Your task to perform on an android device: Open location settings Image 0: 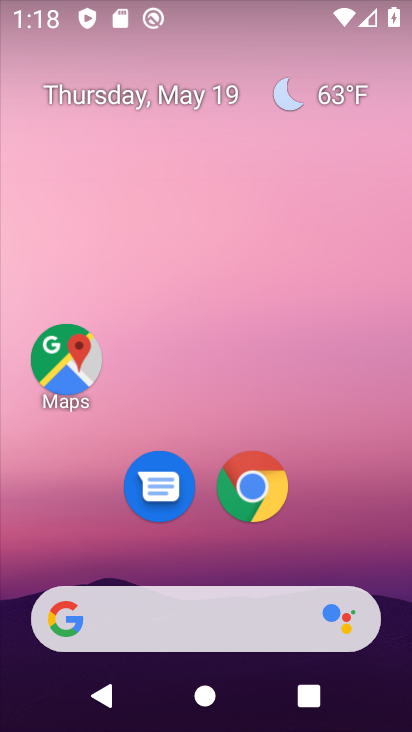
Step 0: drag from (336, 534) to (240, 20)
Your task to perform on an android device: Open location settings Image 1: 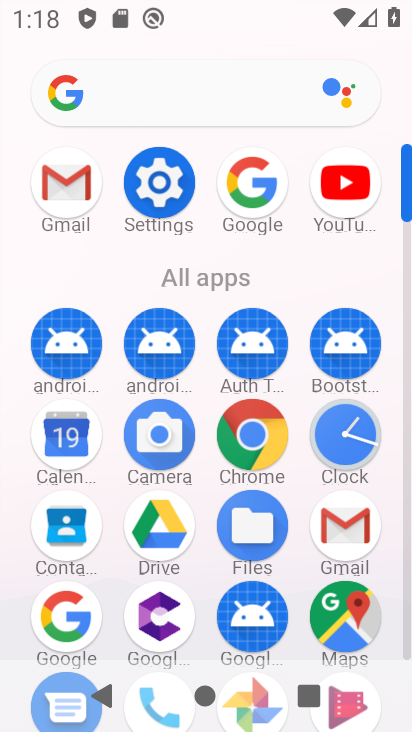
Step 1: click (153, 216)
Your task to perform on an android device: Open location settings Image 2: 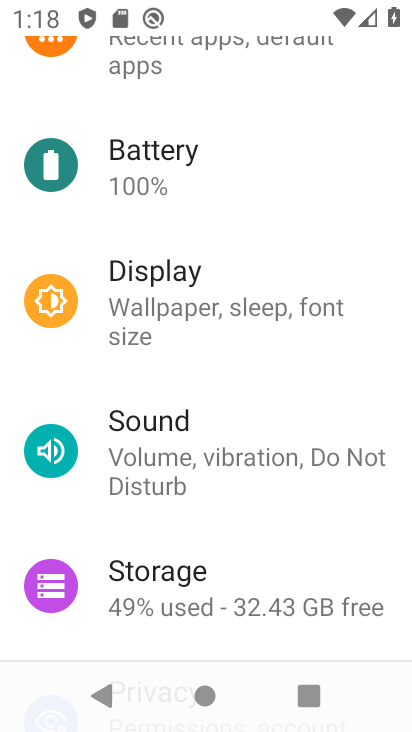
Step 2: drag from (243, 409) to (275, 56)
Your task to perform on an android device: Open location settings Image 3: 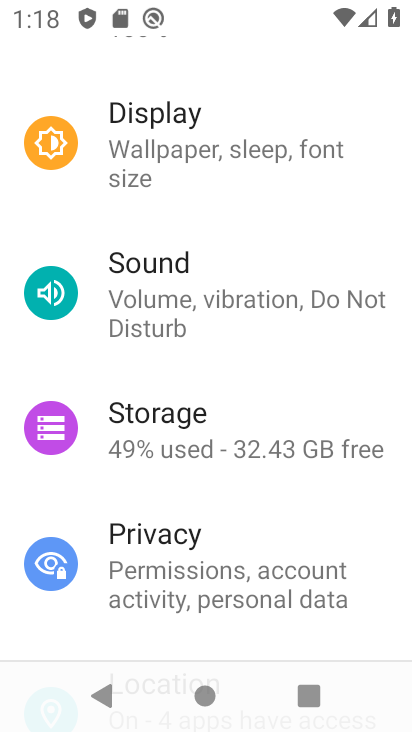
Step 3: drag from (175, 464) to (244, 98)
Your task to perform on an android device: Open location settings Image 4: 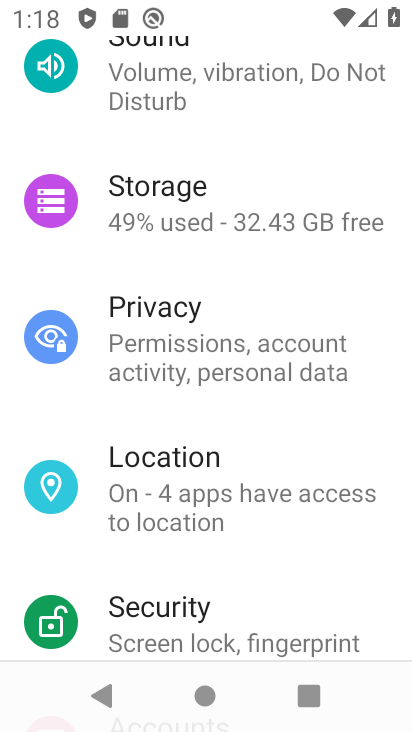
Step 4: click (202, 506)
Your task to perform on an android device: Open location settings Image 5: 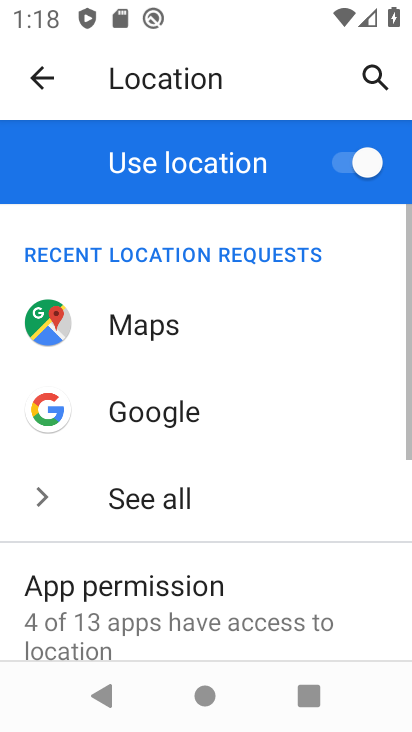
Step 5: task complete